Your task to perform on an android device: clear all cookies in the chrome app Image 0: 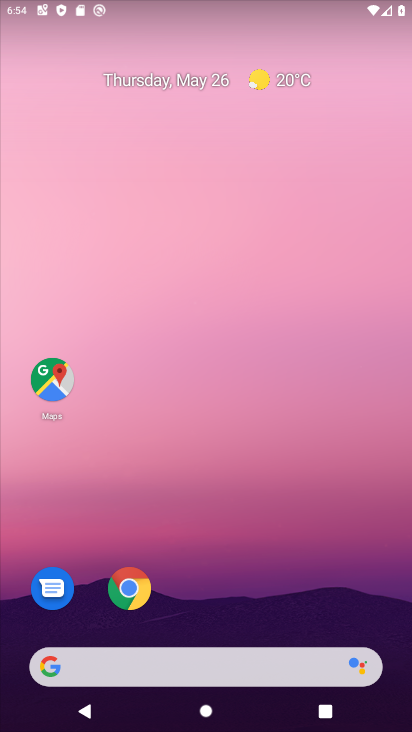
Step 0: drag from (333, 608) to (290, 48)
Your task to perform on an android device: clear all cookies in the chrome app Image 1: 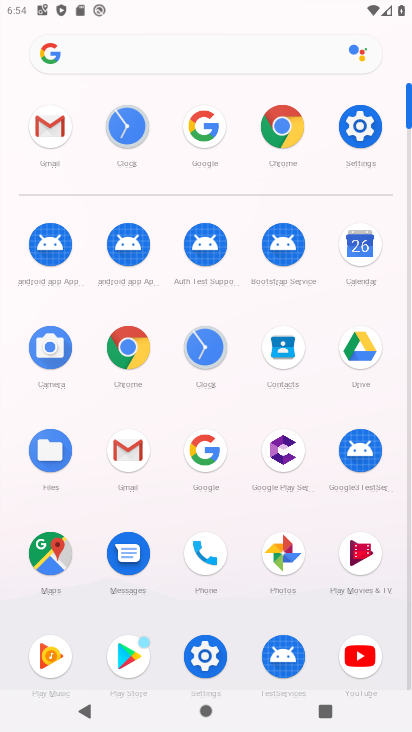
Step 1: click (291, 131)
Your task to perform on an android device: clear all cookies in the chrome app Image 2: 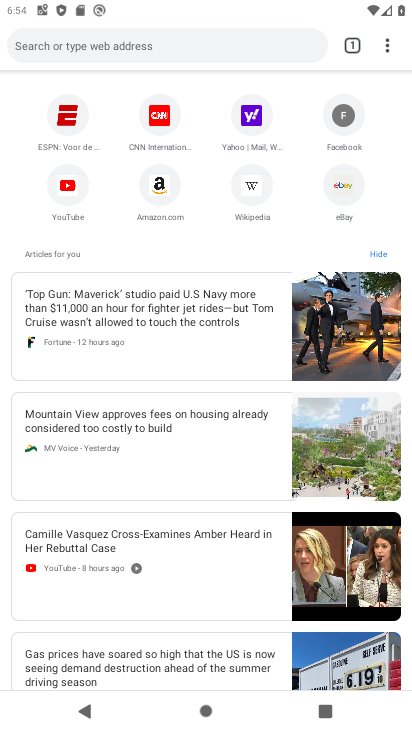
Step 2: click (386, 39)
Your task to perform on an android device: clear all cookies in the chrome app Image 3: 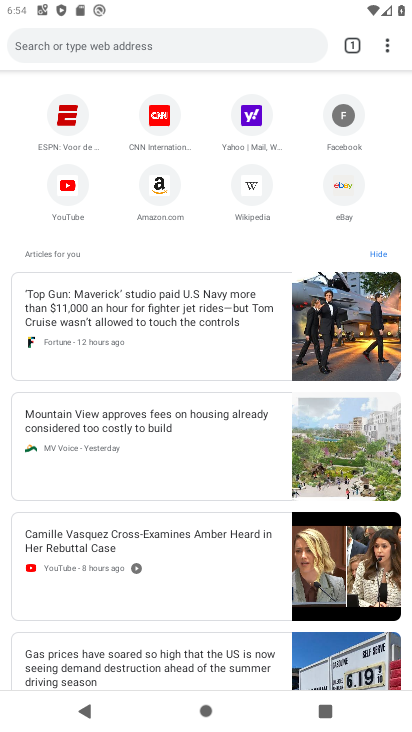
Step 3: click (383, 44)
Your task to perform on an android device: clear all cookies in the chrome app Image 4: 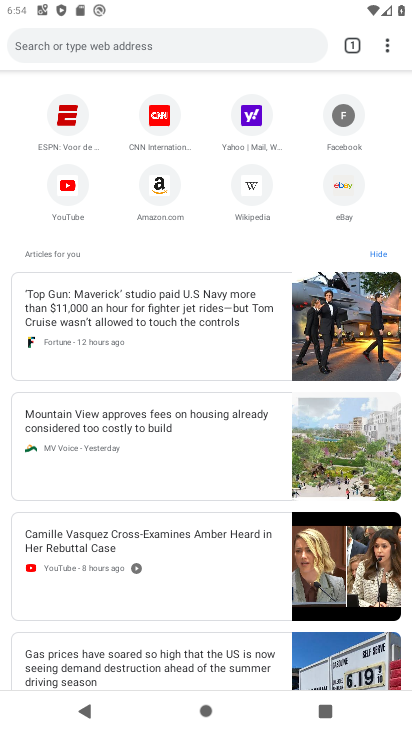
Step 4: click (383, 44)
Your task to perform on an android device: clear all cookies in the chrome app Image 5: 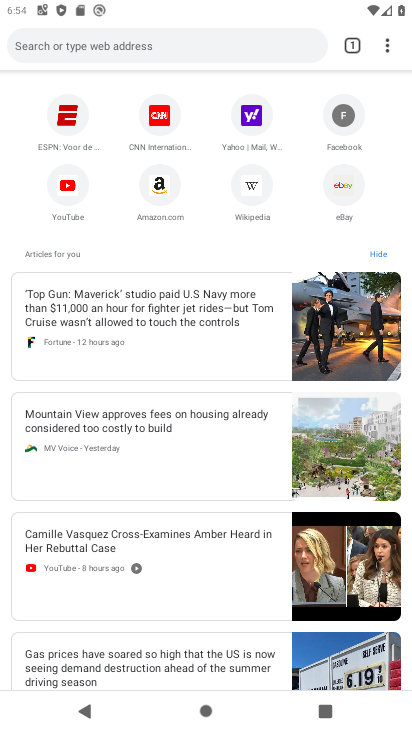
Step 5: click (385, 40)
Your task to perform on an android device: clear all cookies in the chrome app Image 6: 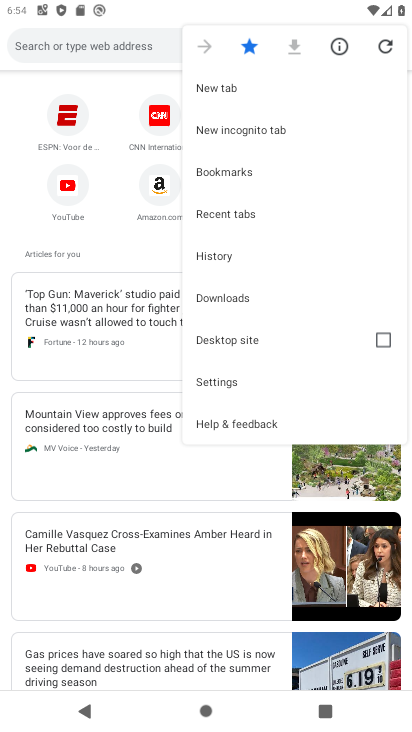
Step 6: click (243, 258)
Your task to perform on an android device: clear all cookies in the chrome app Image 7: 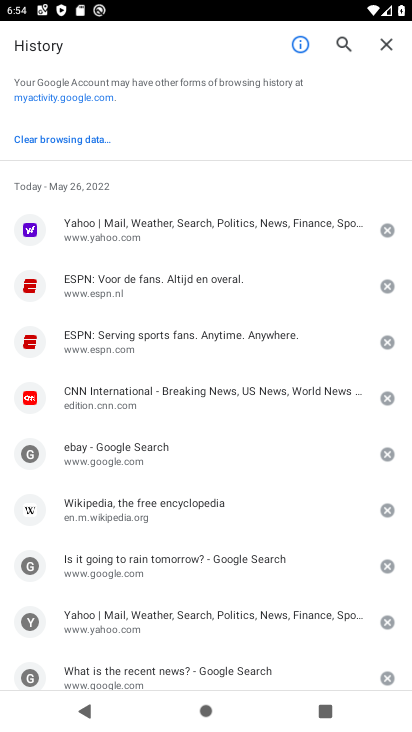
Step 7: click (42, 122)
Your task to perform on an android device: clear all cookies in the chrome app Image 8: 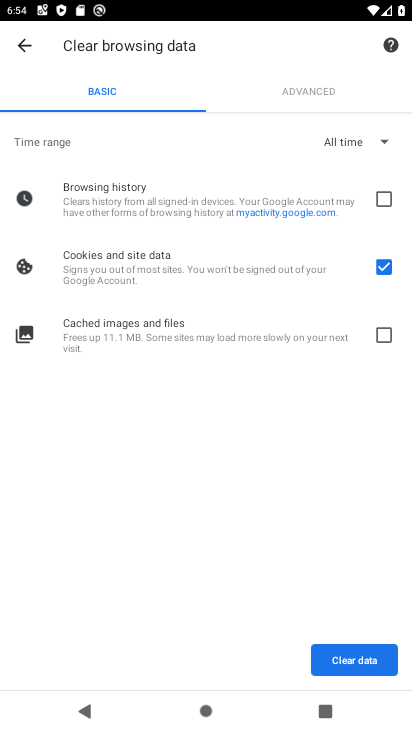
Step 8: click (351, 662)
Your task to perform on an android device: clear all cookies in the chrome app Image 9: 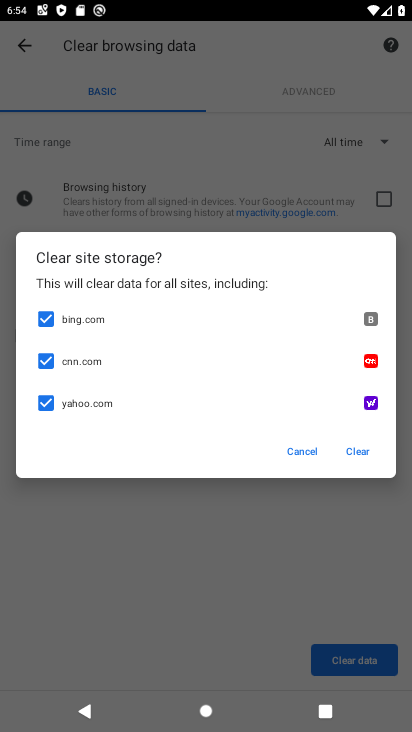
Step 9: click (361, 454)
Your task to perform on an android device: clear all cookies in the chrome app Image 10: 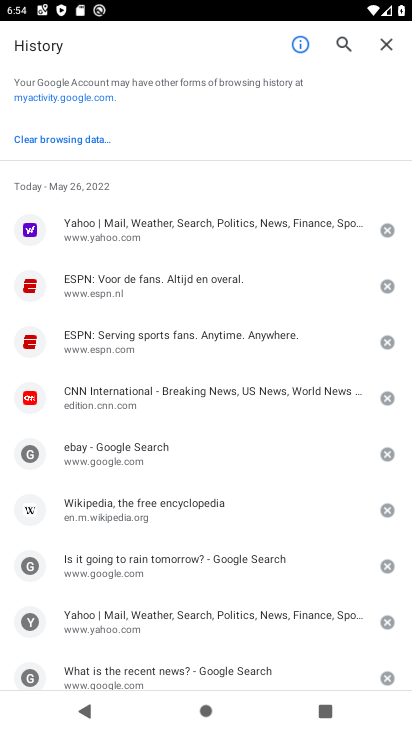
Step 10: click (65, 140)
Your task to perform on an android device: clear all cookies in the chrome app Image 11: 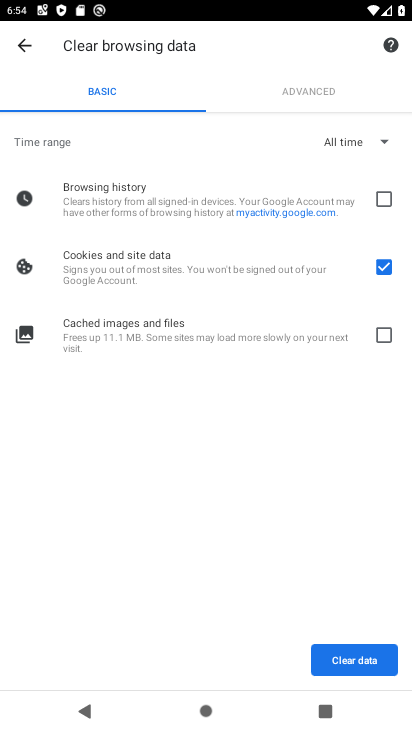
Step 11: click (371, 206)
Your task to perform on an android device: clear all cookies in the chrome app Image 12: 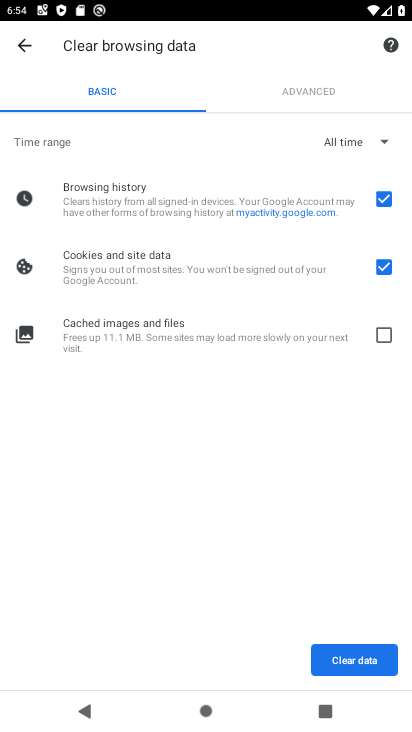
Step 12: click (345, 664)
Your task to perform on an android device: clear all cookies in the chrome app Image 13: 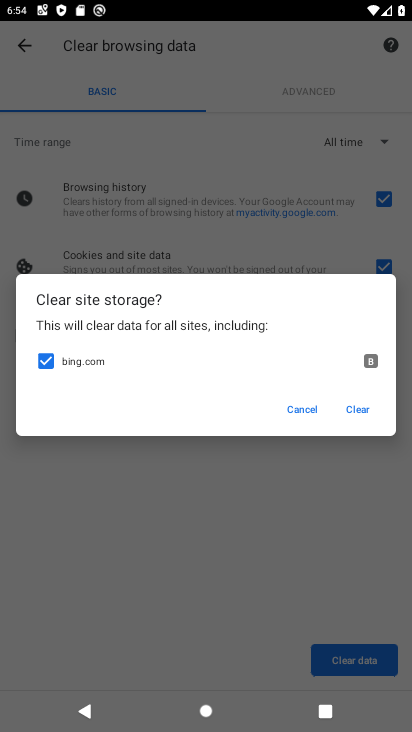
Step 13: click (367, 411)
Your task to perform on an android device: clear all cookies in the chrome app Image 14: 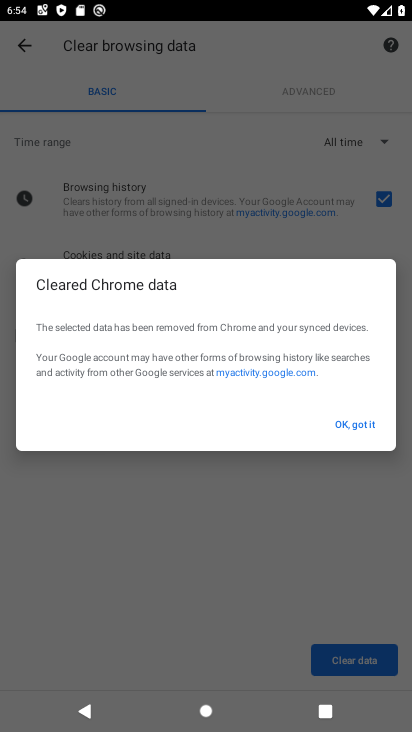
Step 14: click (345, 419)
Your task to perform on an android device: clear all cookies in the chrome app Image 15: 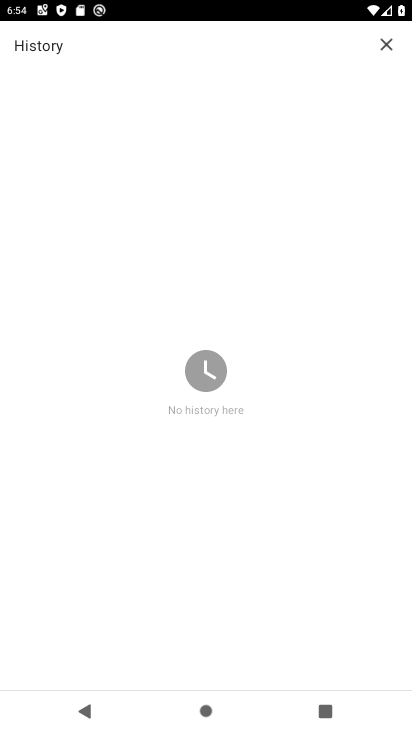
Step 15: task complete